Your task to perform on an android device: Open calendar and show me the fourth week of next month Image 0: 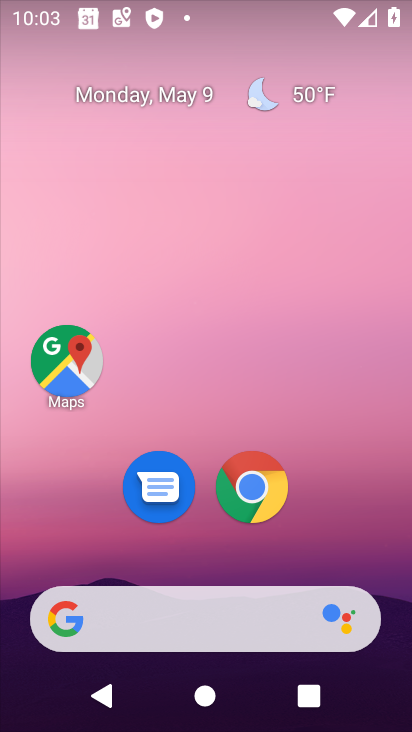
Step 0: press home button
Your task to perform on an android device: Open calendar and show me the fourth week of next month Image 1: 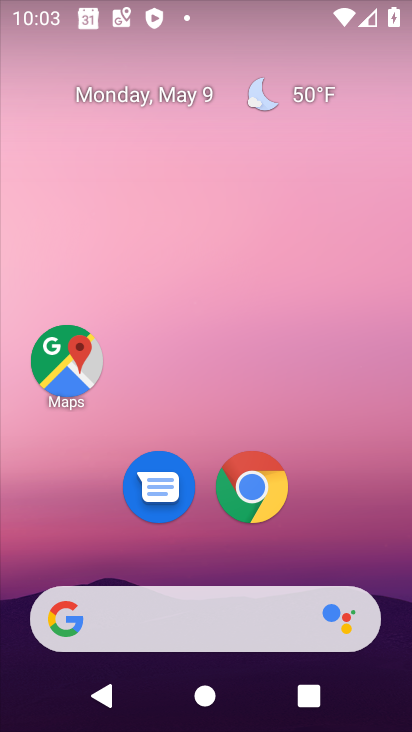
Step 1: drag from (46, 485) to (150, 209)
Your task to perform on an android device: Open calendar and show me the fourth week of next month Image 2: 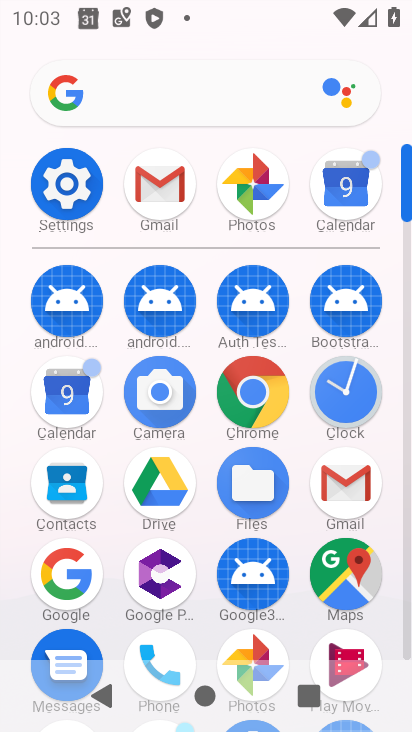
Step 2: click (56, 404)
Your task to perform on an android device: Open calendar and show me the fourth week of next month Image 3: 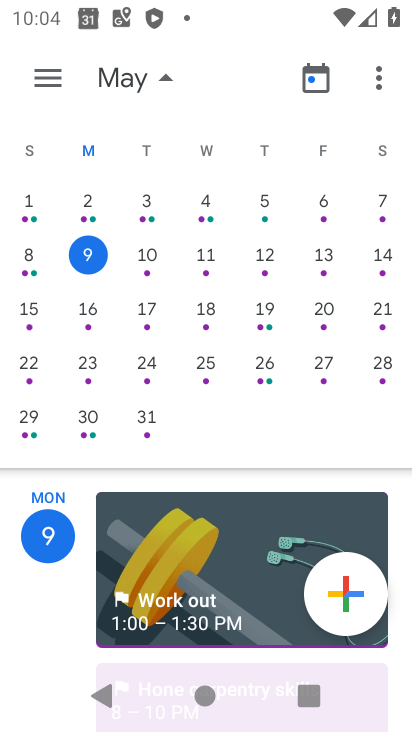
Step 3: click (152, 365)
Your task to perform on an android device: Open calendar and show me the fourth week of next month Image 4: 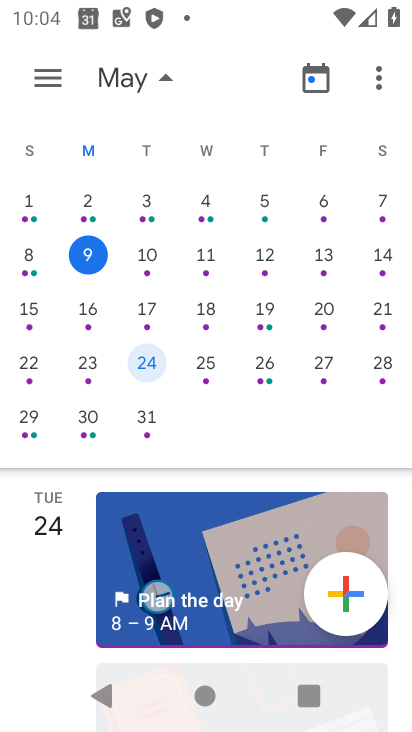
Step 4: click (95, 371)
Your task to perform on an android device: Open calendar and show me the fourth week of next month Image 5: 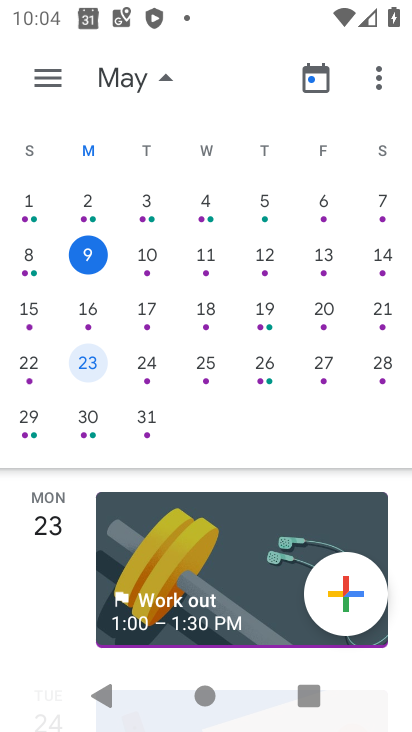
Step 5: click (40, 363)
Your task to perform on an android device: Open calendar and show me the fourth week of next month Image 6: 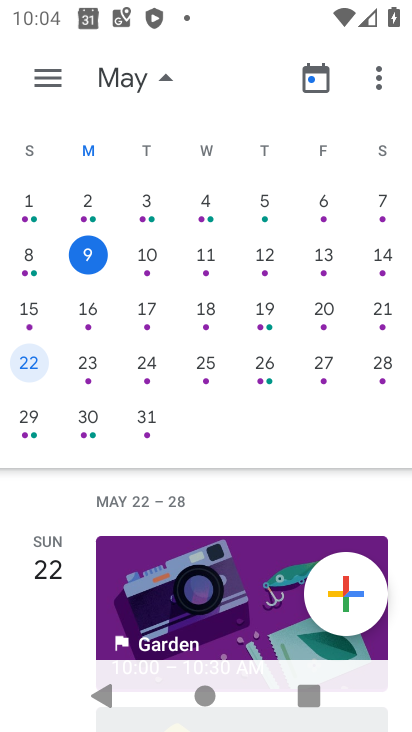
Step 6: click (193, 358)
Your task to perform on an android device: Open calendar and show me the fourth week of next month Image 7: 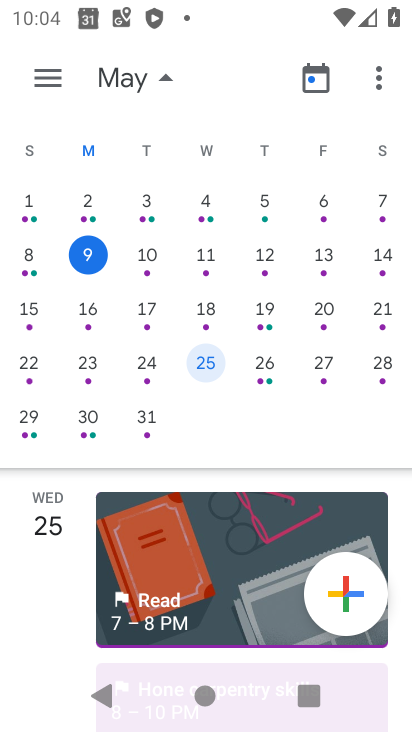
Step 7: click (279, 368)
Your task to perform on an android device: Open calendar and show me the fourth week of next month Image 8: 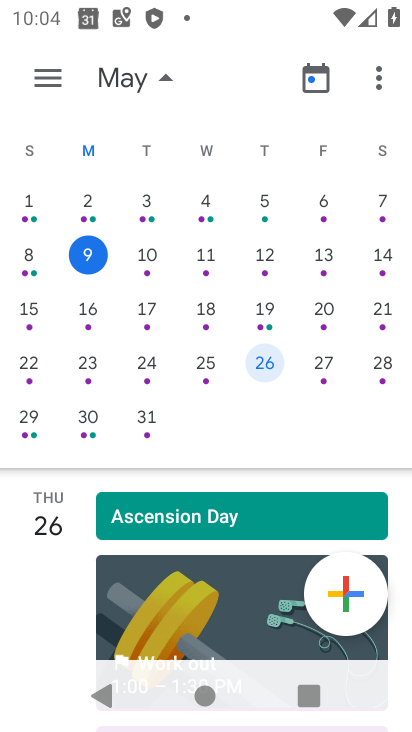
Step 8: click (324, 352)
Your task to perform on an android device: Open calendar and show me the fourth week of next month Image 9: 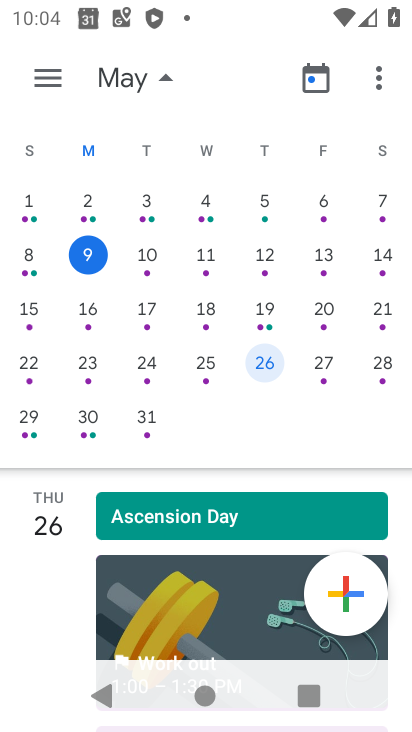
Step 9: click (324, 376)
Your task to perform on an android device: Open calendar and show me the fourth week of next month Image 10: 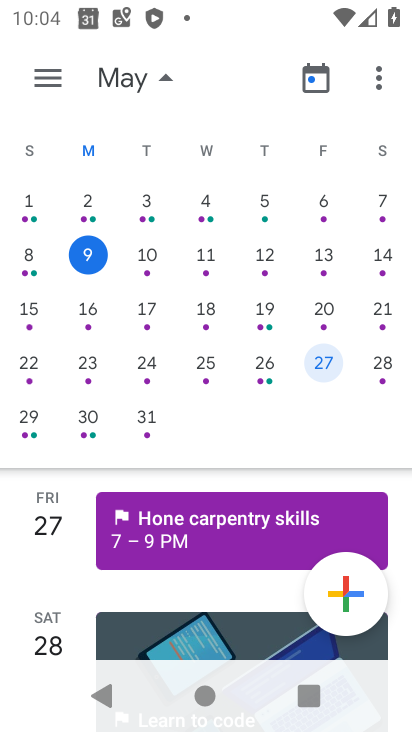
Step 10: click (378, 360)
Your task to perform on an android device: Open calendar and show me the fourth week of next month Image 11: 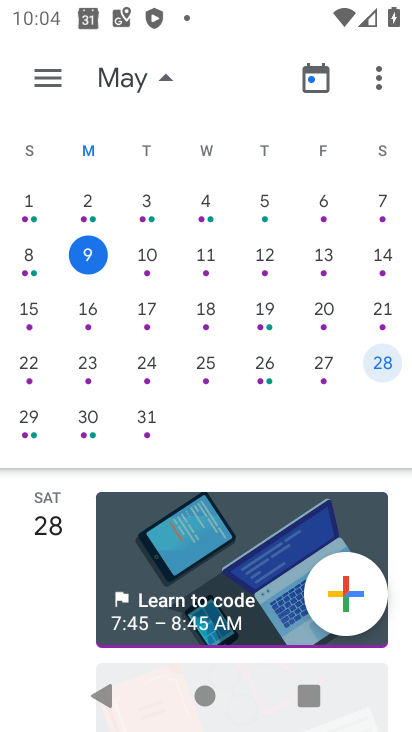
Step 11: task complete